Your task to perform on an android device: check storage Image 0: 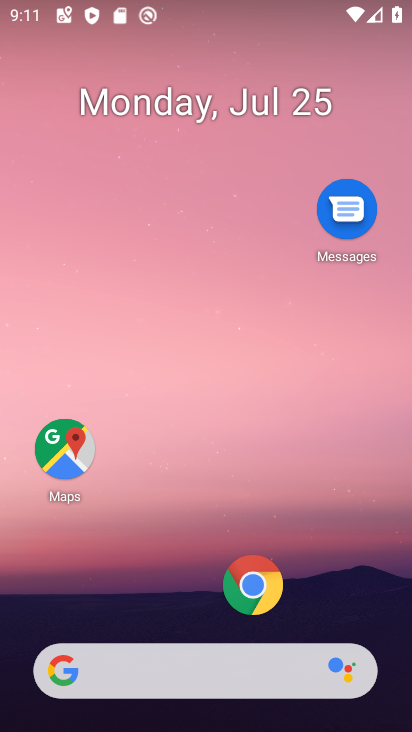
Step 0: press home button
Your task to perform on an android device: check storage Image 1: 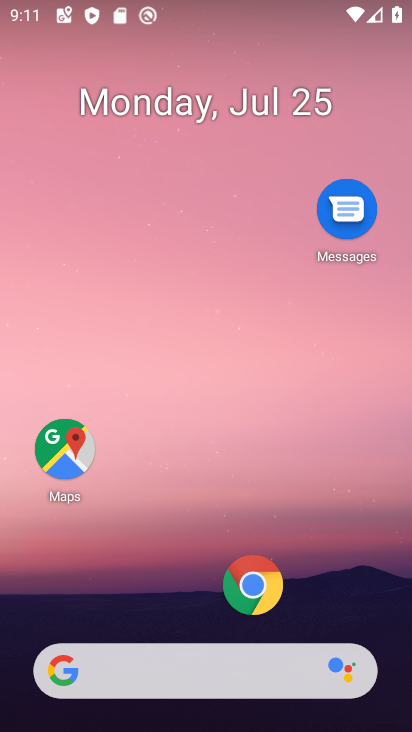
Step 1: drag from (179, 658) to (246, 3)
Your task to perform on an android device: check storage Image 2: 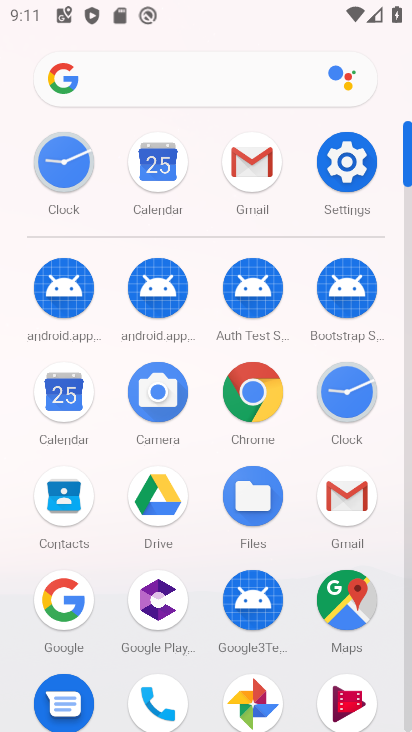
Step 2: click (347, 174)
Your task to perform on an android device: check storage Image 3: 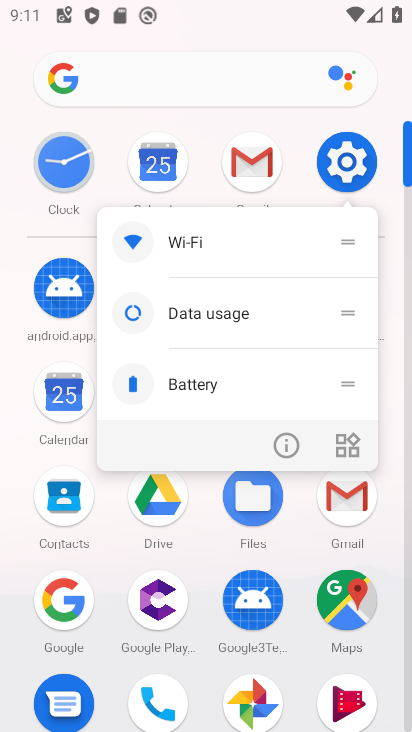
Step 3: click (341, 167)
Your task to perform on an android device: check storage Image 4: 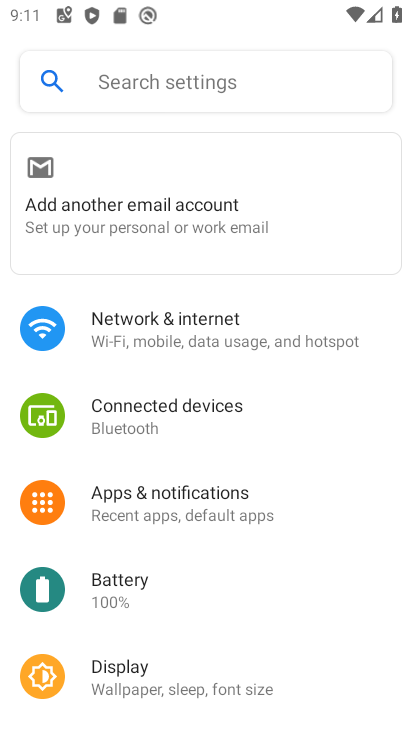
Step 4: drag from (222, 572) to (350, 124)
Your task to perform on an android device: check storage Image 5: 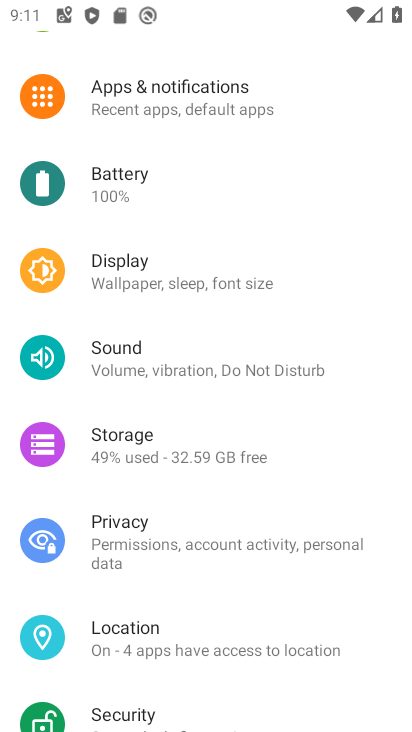
Step 5: click (162, 443)
Your task to perform on an android device: check storage Image 6: 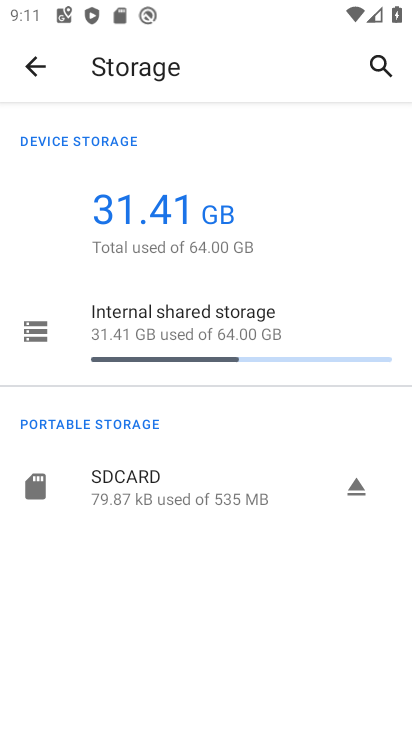
Step 6: task complete